Your task to perform on an android device: turn on notifications settings in the gmail app Image 0: 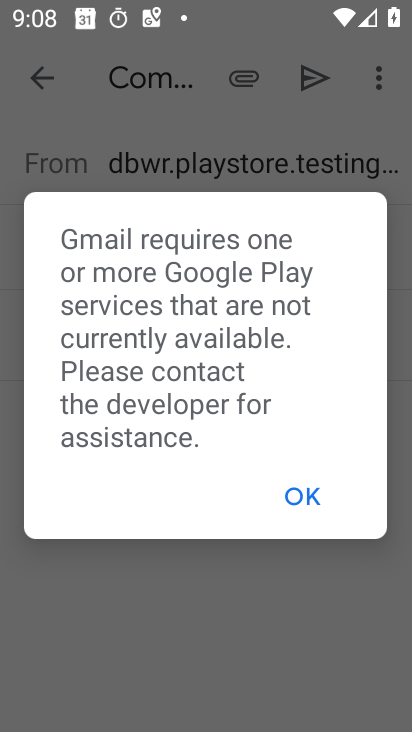
Step 0: press back button
Your task to perform on an android device: turn on notifications settings in the gmail app Image 1: 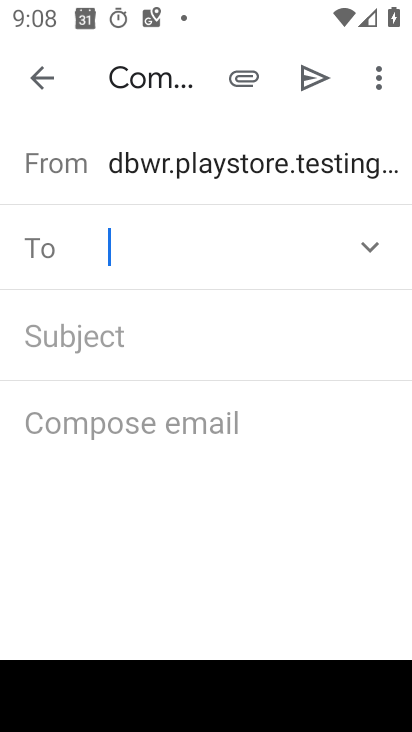
Step 1: press home button
Your task to perform on an android device: turn on notifications settings in the gmail app Image 2: 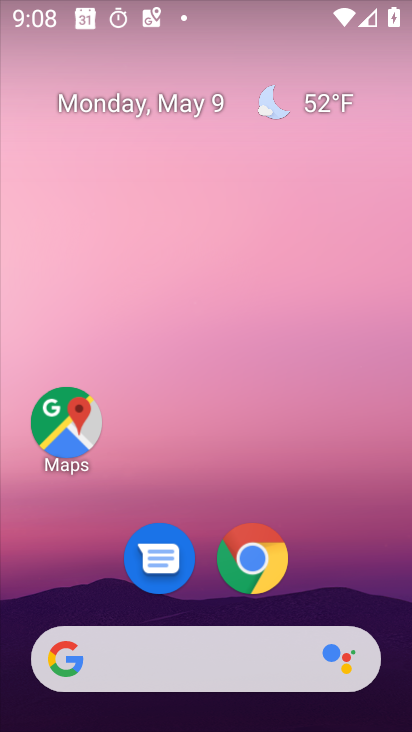
Step 2: drag from (171, 587) to (320, 82)
Your task to perform on an android device: turn on notifications settings in the gmail app Image 3: 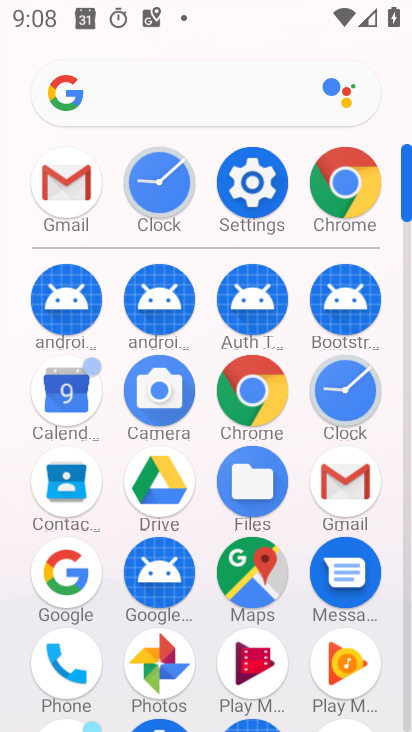
Step 3: click (73, 182)
Your task to perform on an android device: turn on notifications settings in the gmail app Image 4: 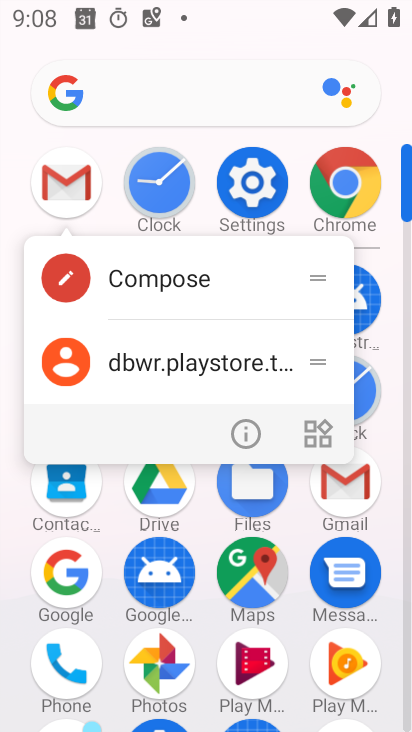
Step 4: click (249, 430)
Your task to perform on an android device: turn on notifications settings in the gmail app Image 5: 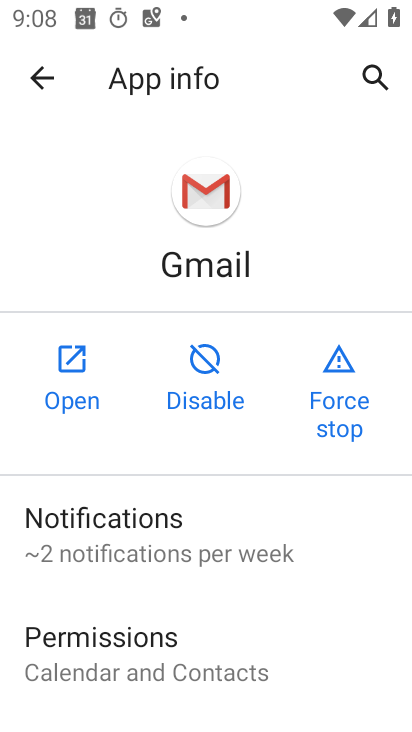
Step 5: drag from (137, 677) to (217, 279)
Your task to perform on an android device: turn on notifications settings in the gmail app Image 6: 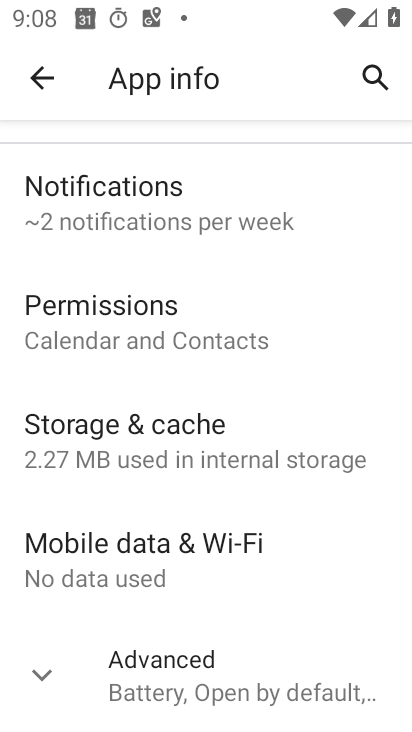
Step 6: click (181, 200)
Your task to perform on an android device: turn on notifications settings in the gmail app Image 7: 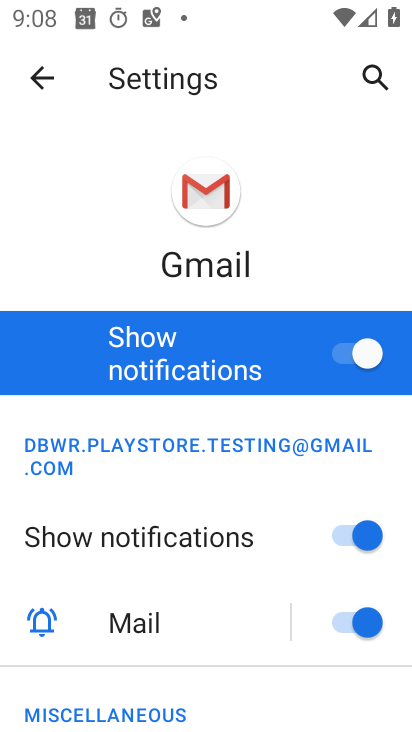
Step 7: task complete